Your task to perform on an android device: open a bookmark in the chrome app Image 0: 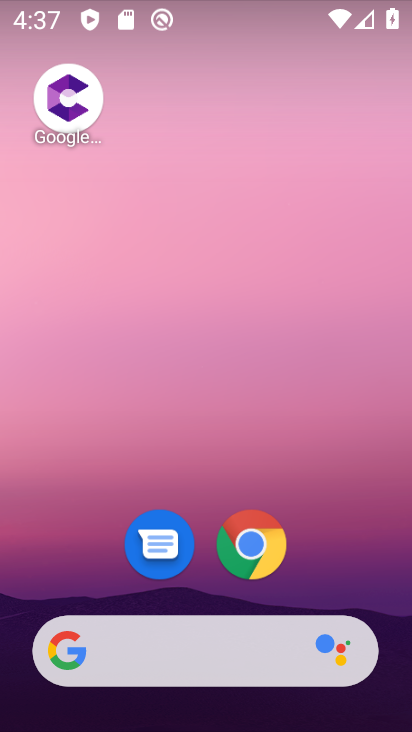
Step 0: drag from (393, 690) to (380, 278)
Your task to perform on an android device: open a bookmark in the chrome app Image 1: 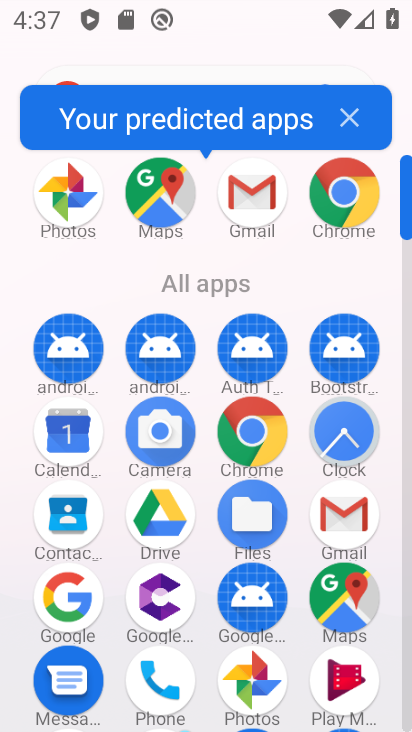
Step 1: click (359, 190)
Your task to perform on an android device: open a bookmark in the chrome app Image 2: 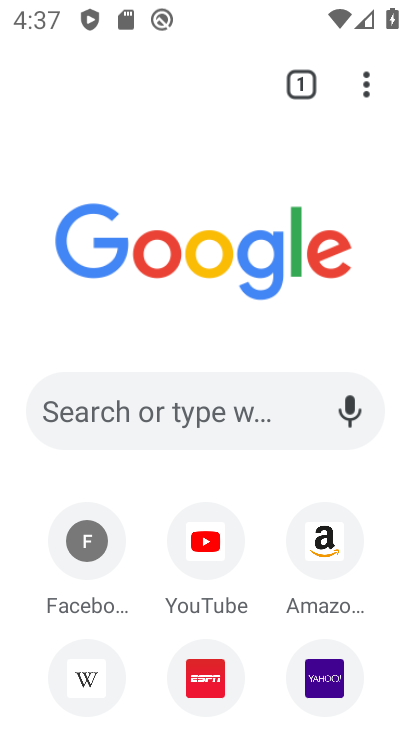
Step 2: click (365, 86)
Your task to perform on an android device: open a bookmark in the chrome app Image 3: 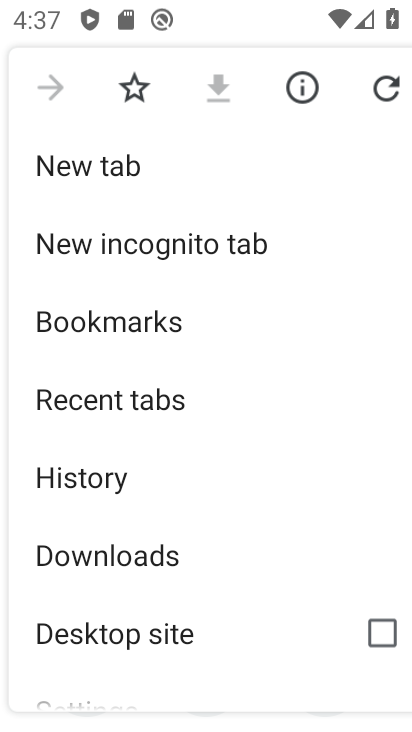
Step 3: drag from (267, 578) to (275, 331)
Your task to perform on an android device: open a bookmark in the chrome app Image 4: 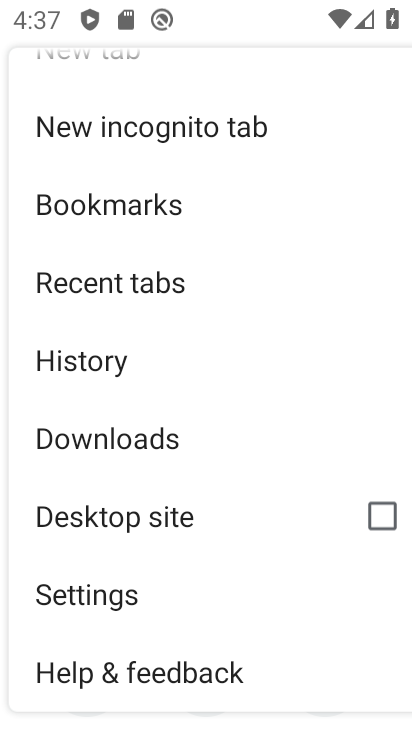
Step 4: click (125, 203)
Your task to perform on an android device: open a bookmark in the chrome app Image 5: 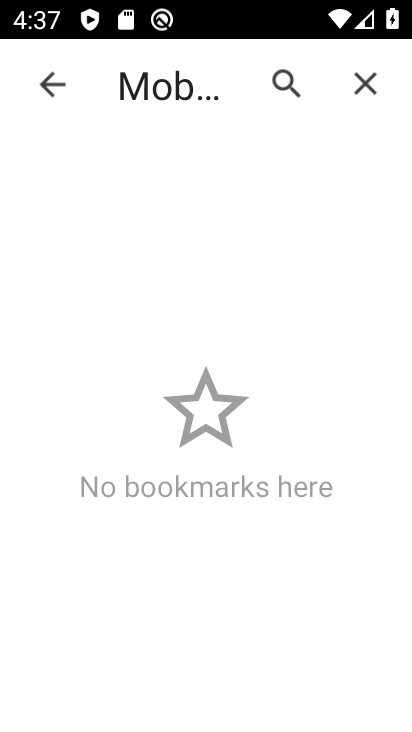
Step 5: task complete